Your task to perform on an android device: turn on translation in the chrome app Image 0: 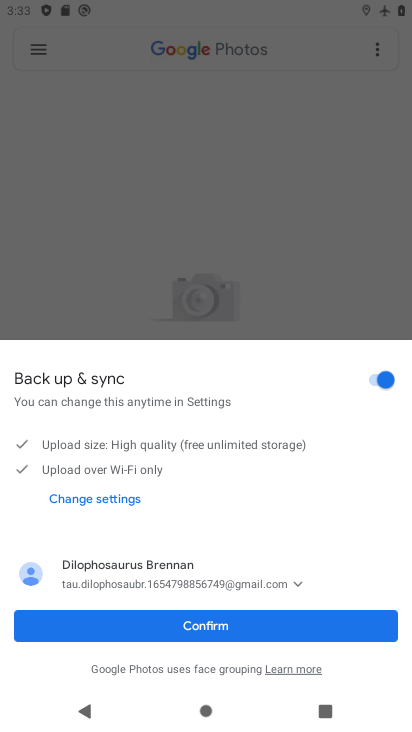
Step 0: press home button
Your task to perform on an android device: turn on translation in the chrome app Image 1: 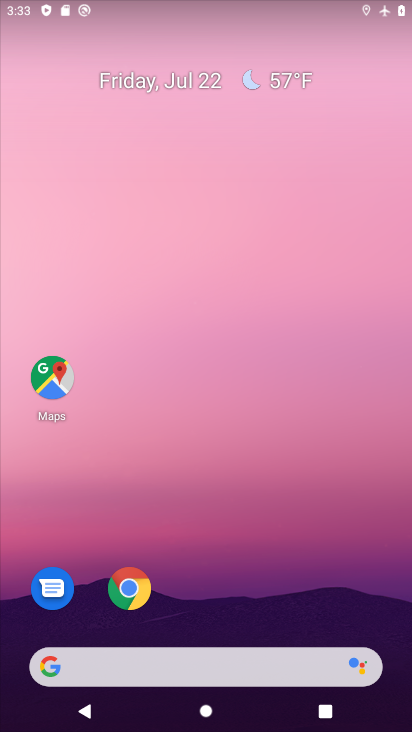
Step 1: click (138, 586)
Your task to perform on an android device: turn on translation in the chrome app Image 2: 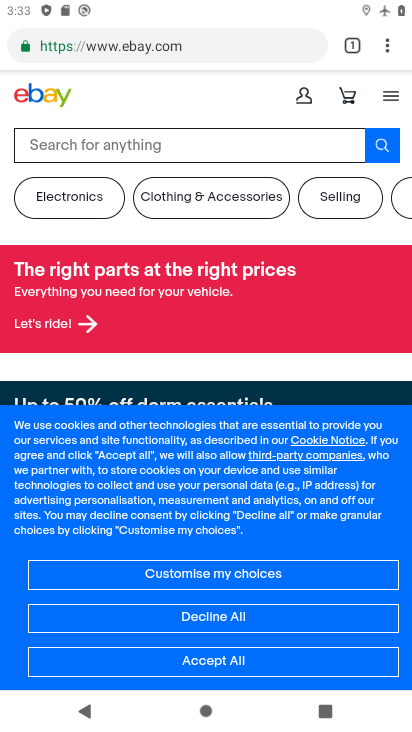
Step 2: drag from (385, 40) to (235, 501)
Your task to perform on an android device: turn on translation in the chrome app Image 3: 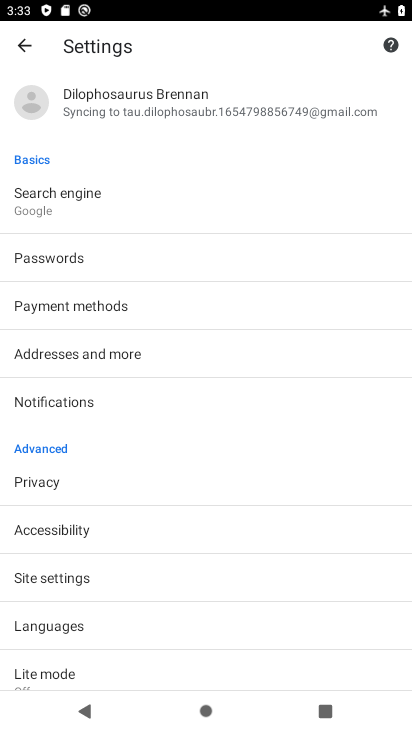
Step 3: click (94, 630)
Your task to perform on an android device: turn on translation in the chrome app Image 4: 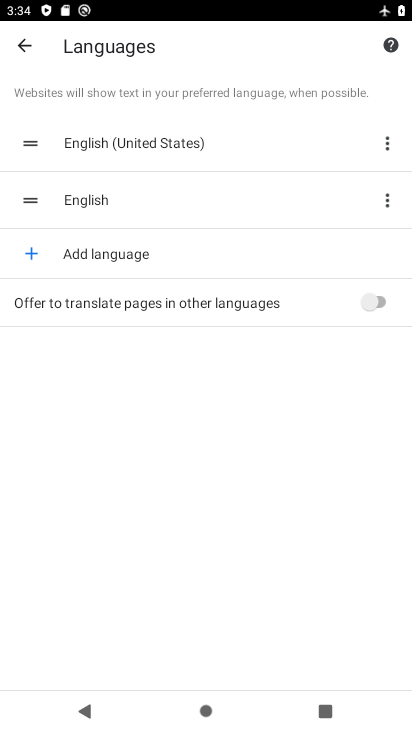
Step 4: click (380, 305)
Your task to perform on an android device: turn on translation in the chrome app Image 5: 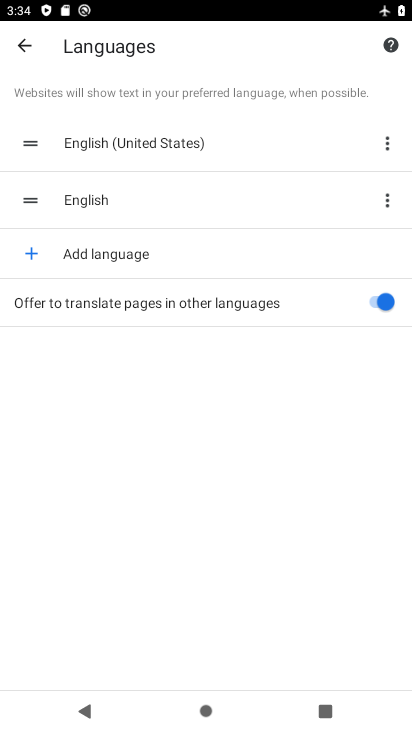
Step 5: task complete